Your task to perform on an android device: Search for hotels in Atlanta Image 0: 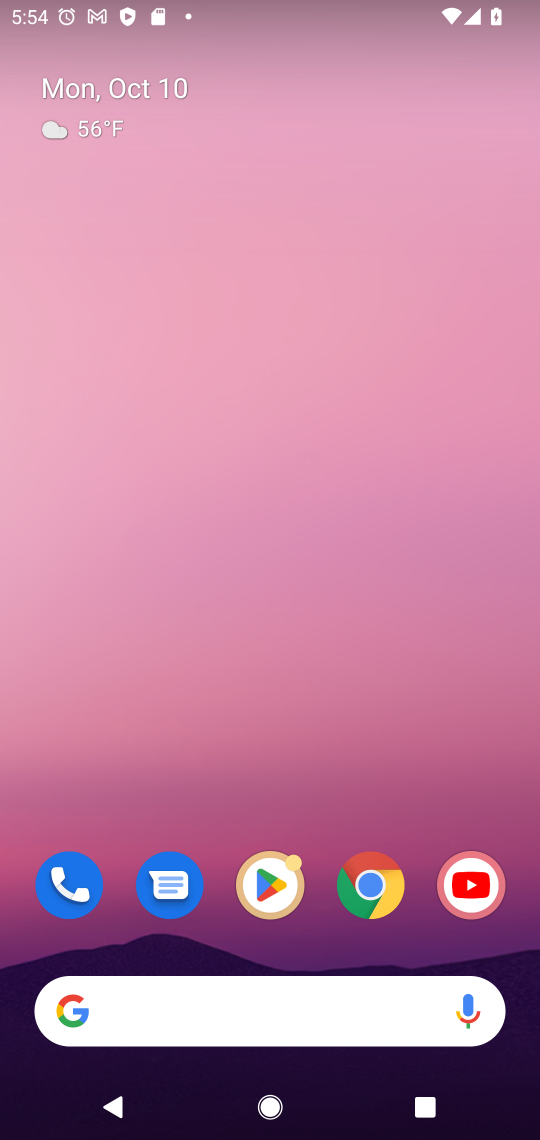
Step 0: click (314, 987)
Your task to perform on an android device: Search for hotels in Atlanta Image 1: 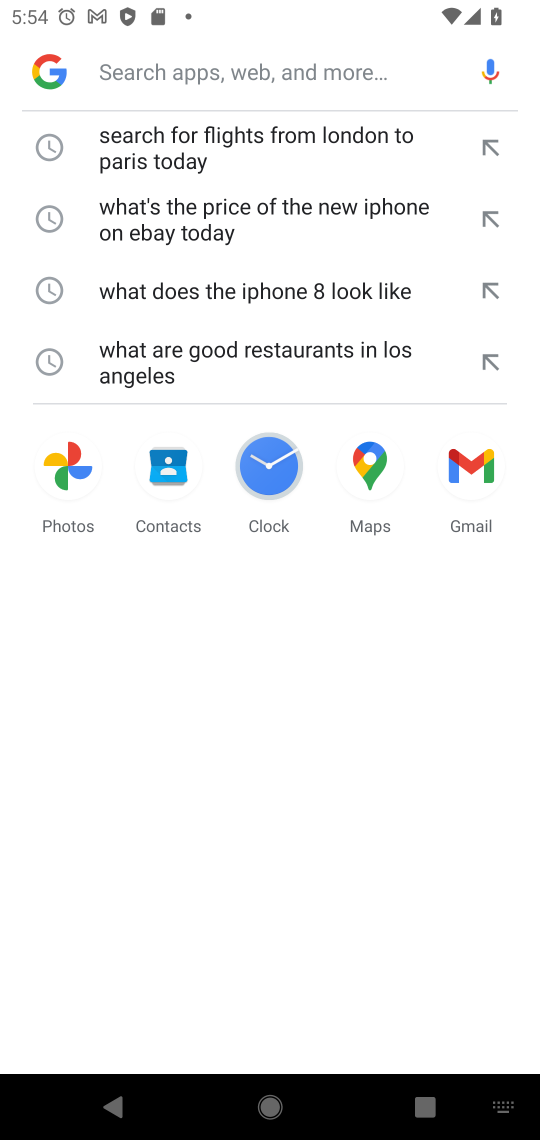
Step 1: type " hotels in Atlanta"
Your task to perform on an android device: Search for hotels in Atlanta Image 2: 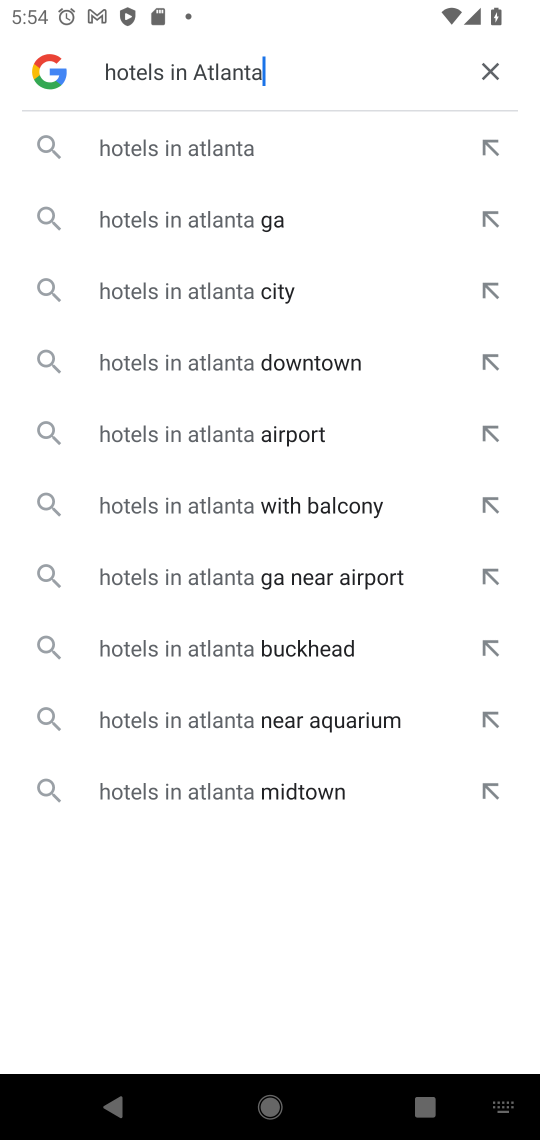
Step 2: click (211, 145)
Your task to perform on an android device: Search for hotels in Atlanta Image 3: 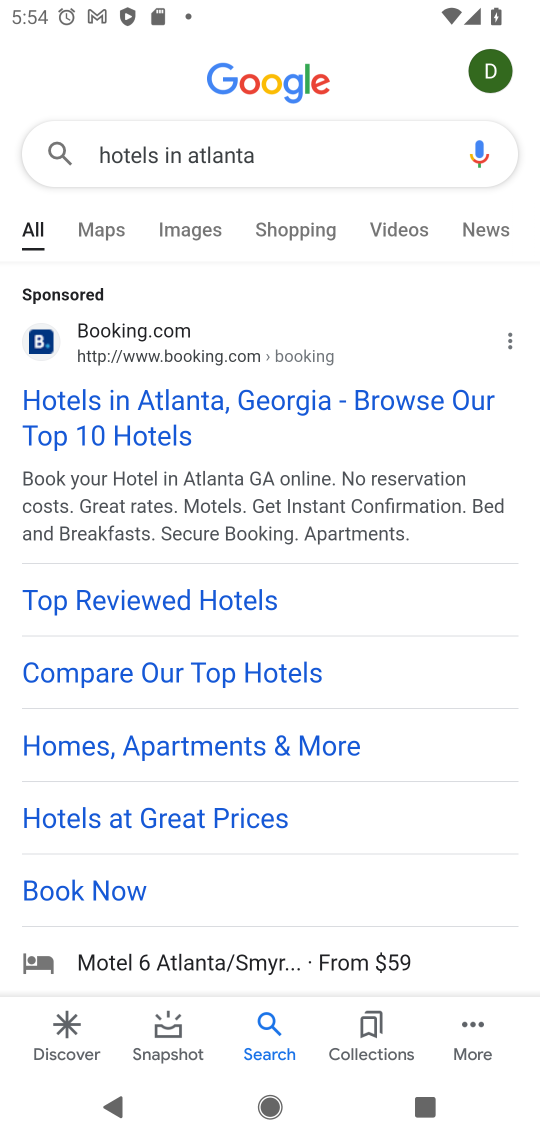
Step 3: click (211, 398)
Your task to perform on an android device: Search for hotels in Atlanta Image 4: 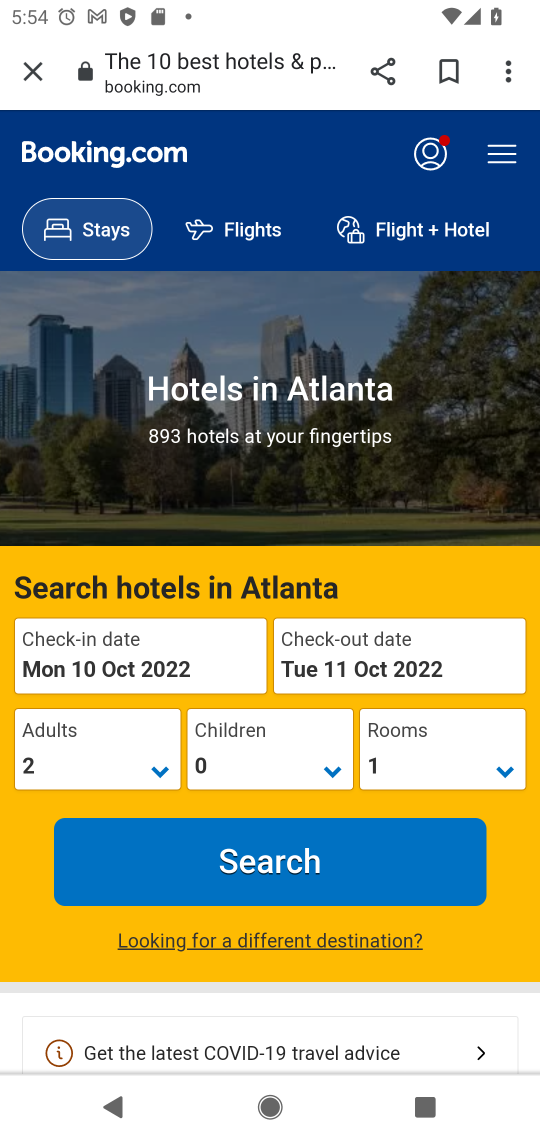
Step 4: click (278, 863)
Your task to perform on an android device: Search for hotels in Atlanta Image 5: 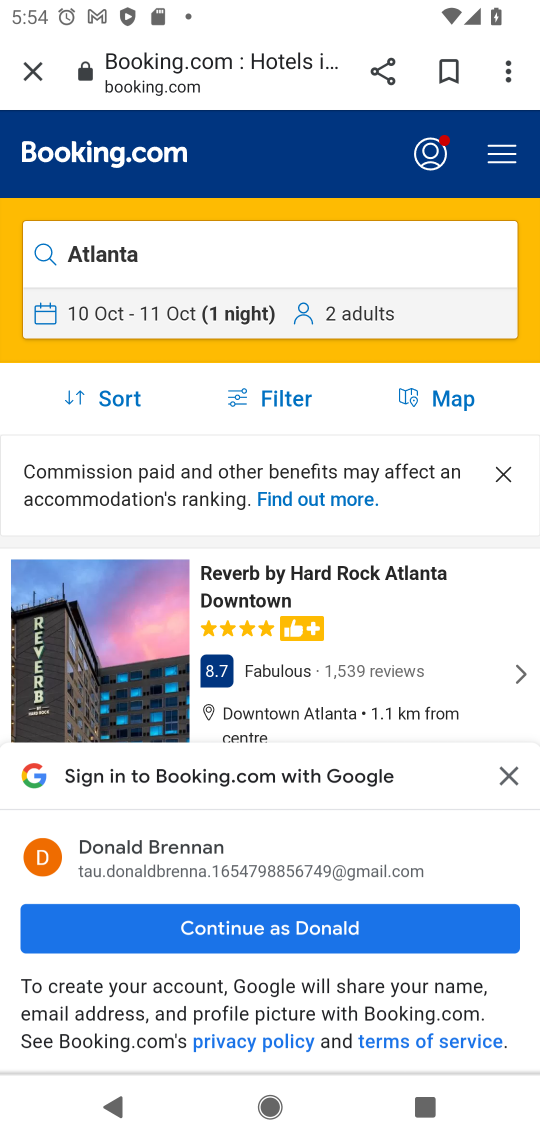
Step 5: click (511, 778)
Your task to perform on an android device: Search for hotels in Atlanta Image 6: 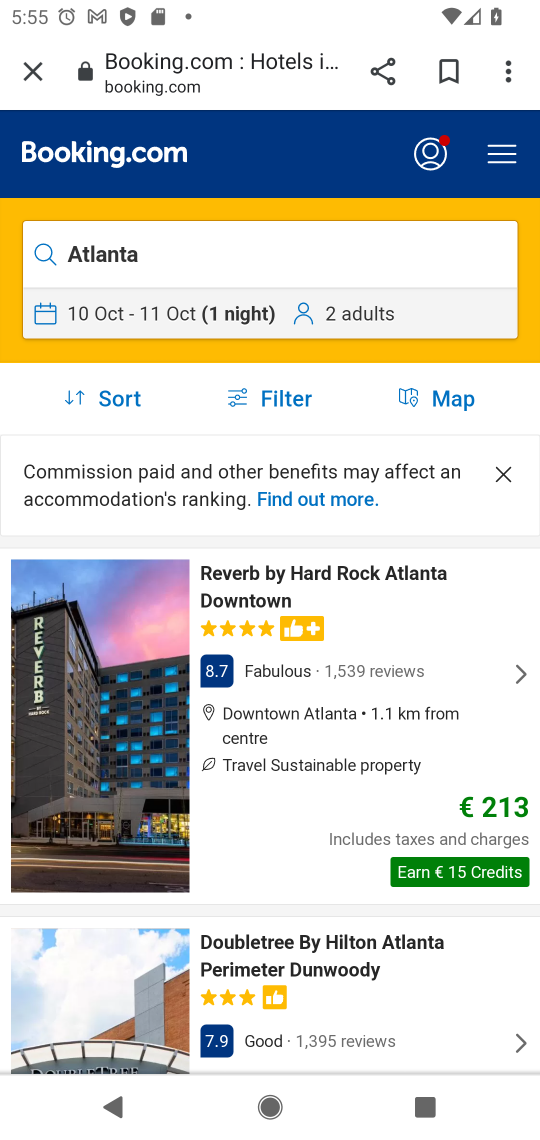
Step 6: task complete